Your task to perform on an android device: Search for sushi restaurants on Maps Image 0: 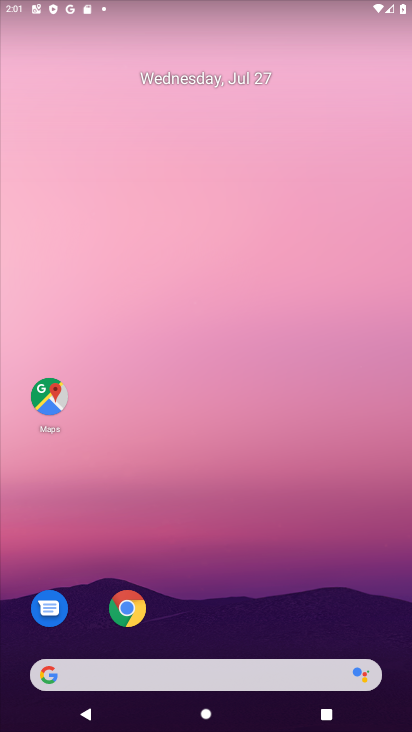
Step 0: press home button
Your task to perform on an android device: Search for sushi restaurants on Maps Image 1: 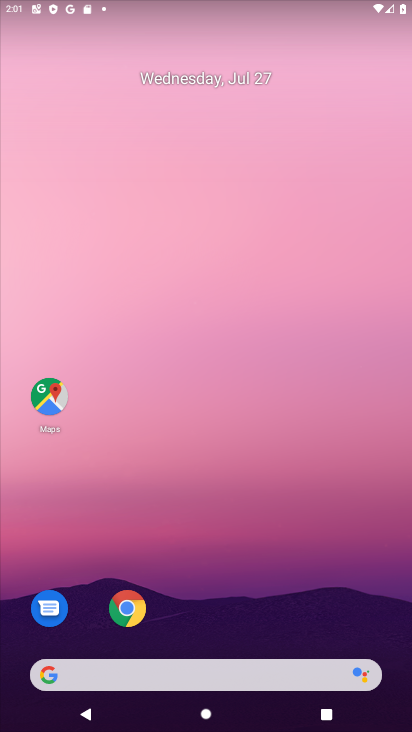
Step 1: drag from (143, 509) to (241, 129)
Your task to perform on an android device: Search for sushi restaurants on Maps Image 2: 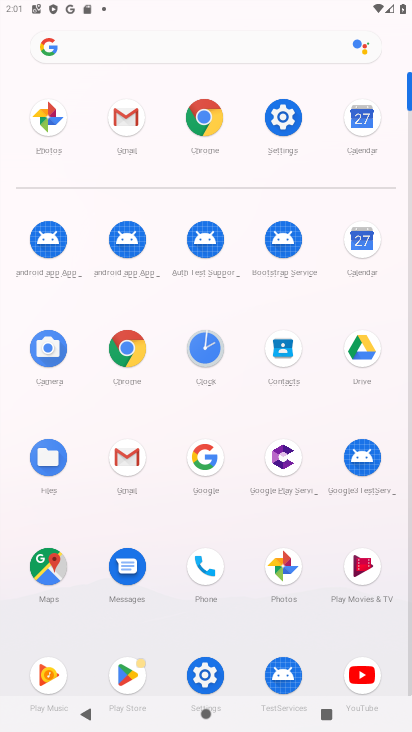
Step 2: click (31, 568)
Your task to perform on an android device: Search for sushi restaurants on Maps Image 3: 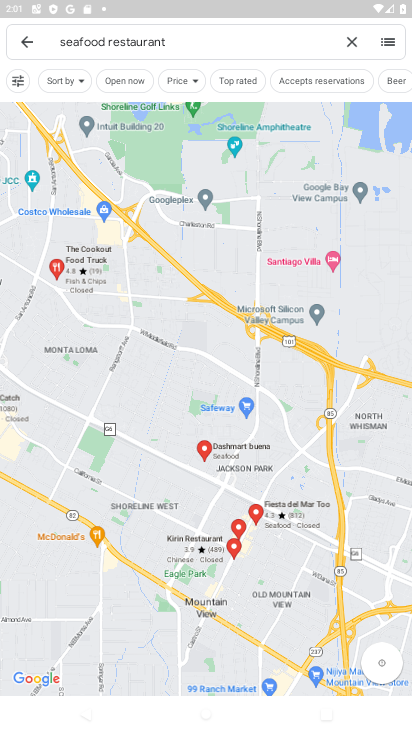
Step 3: click (355, 47)
Your task to perform on an android device: Search for sushi restaurants on Maps Image 4: 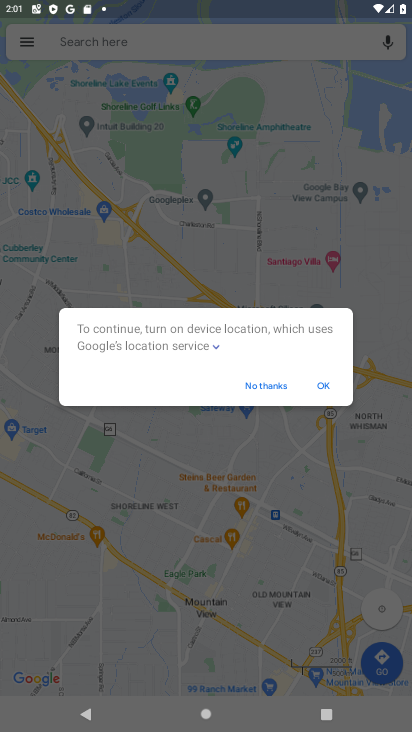
Step 4: click (327, 390)
Your task to perform on an android device: Search for sushi restaurants on Maps Image 5: 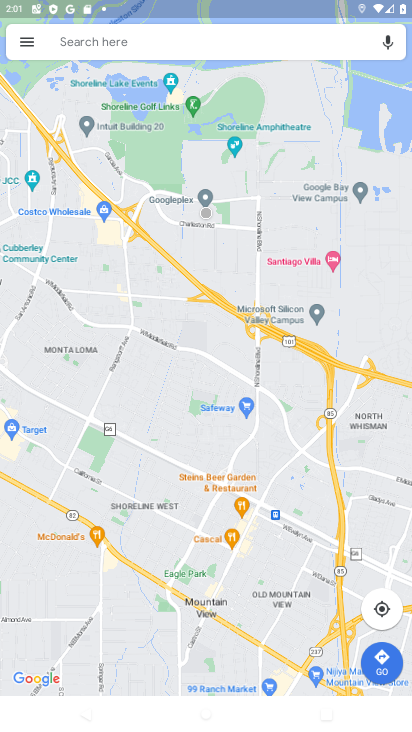
Step 5: click (65, 46)
Your task to perform on an android device: Search for sushi restaurants on Maps Image 6: 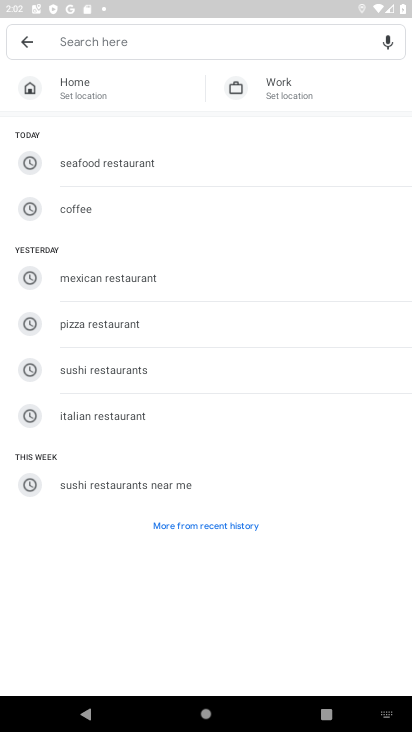
Step 6: click (126, 376)
Your task to perform on an android device: Search for sushi restaurants on Maps Image 7: 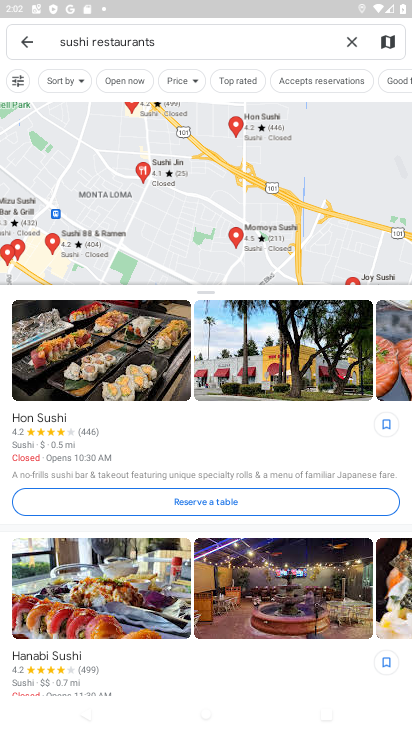
Step 7: task complete